Your task to perform on an android device: open chrome privacy settings Image 0: 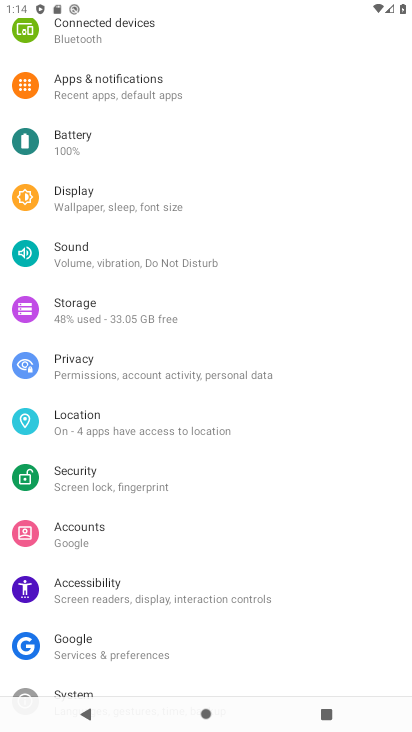
Step 0: press home button
Your task to perform on an android device: open chrome privacy settings Image 1: 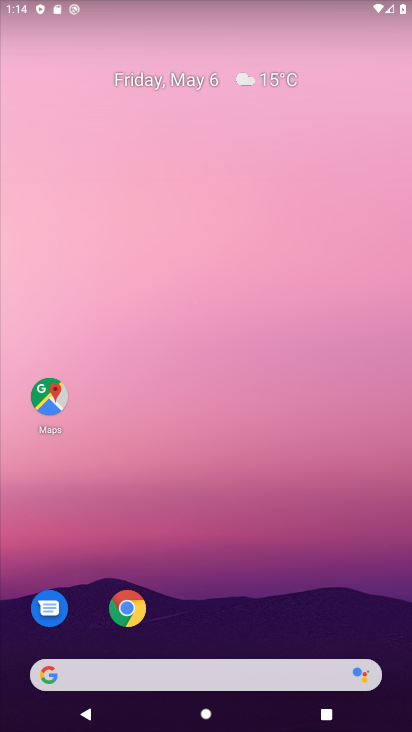
Step 1: drag from (248, 585) to (300, 22)
Your task to perform on an android device: open chrome privacy settings Image 2: 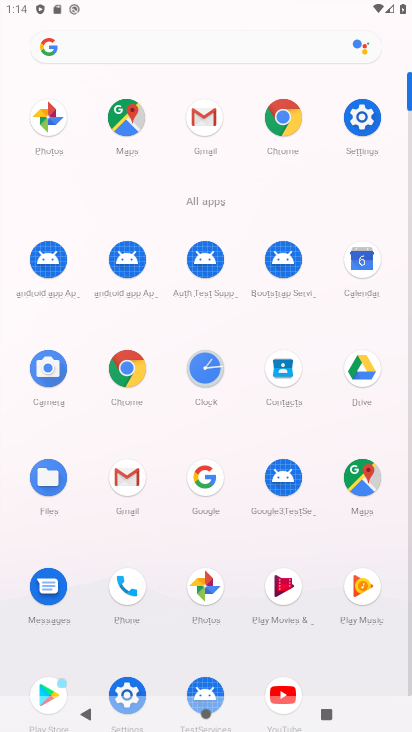
Step 2: click (291, 120)
Your task to perform on an android device: open chrome privacy settings Image 3: 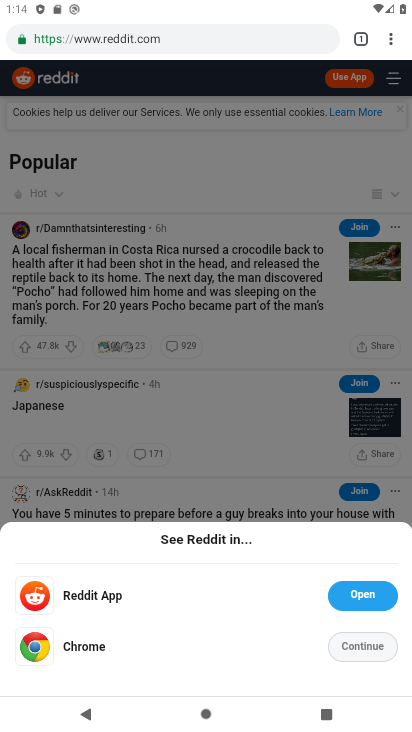
Step 3: drag from (396, 42) to (234, 511)
Your task to perform on an android device: open chrome privacy settings Image 4: 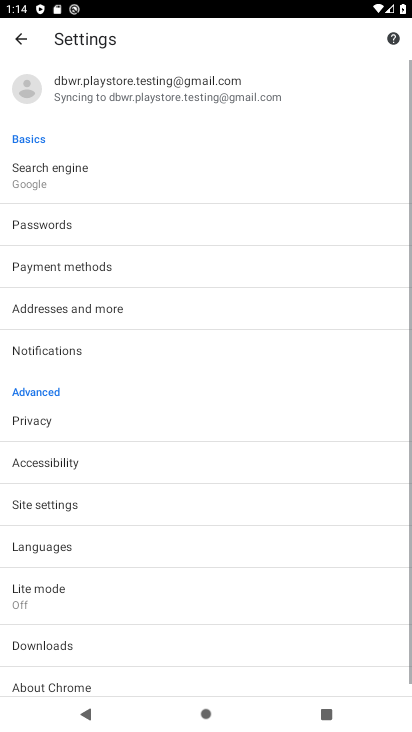
Step 4: drag from (137, 497) to (144, 413)
Your task to perform on an android device: open chrome privacy settings Image 5: 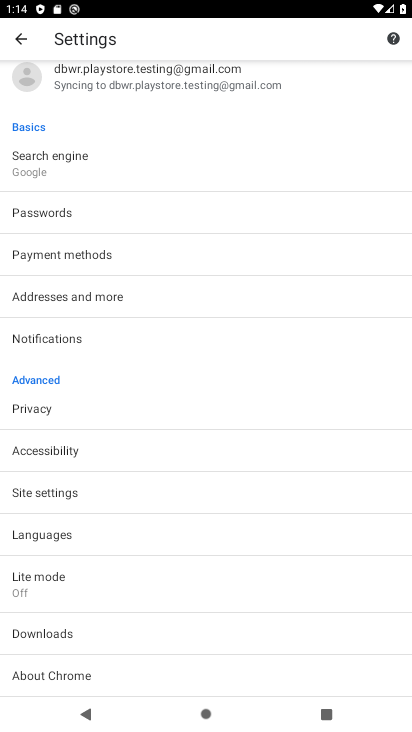
Step 5: click (47, 415)
Your task to perform on an android device: open chrome privacy settings Image 6: 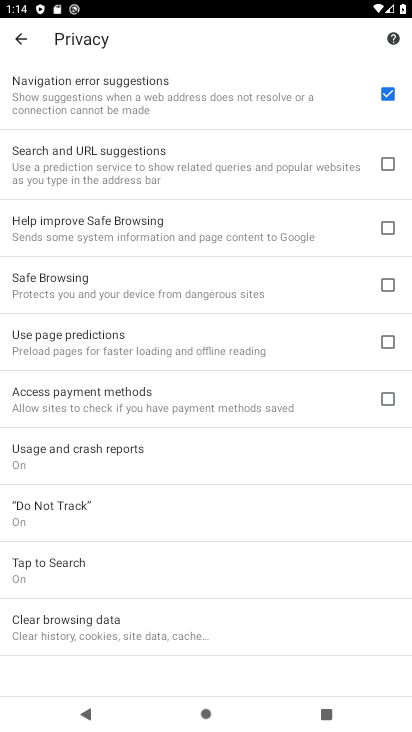
Step 6: task complete